Your task to perform on an android device: change keyboard looks Image 0: 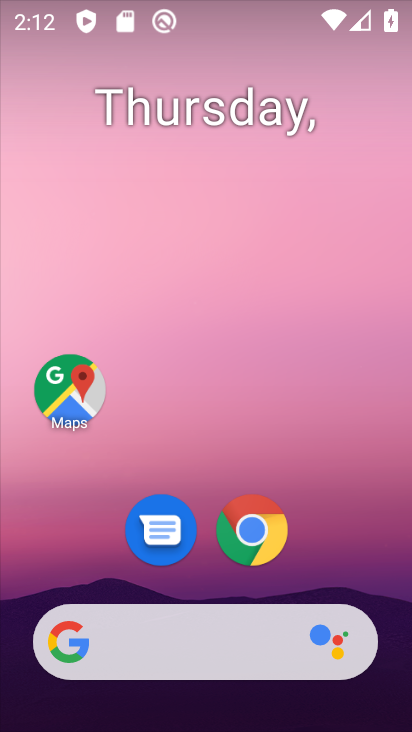
Step 0: drag from (120, 719) to (290, 0)
Your task to perform on an android device: change keyboard looks Image 1: 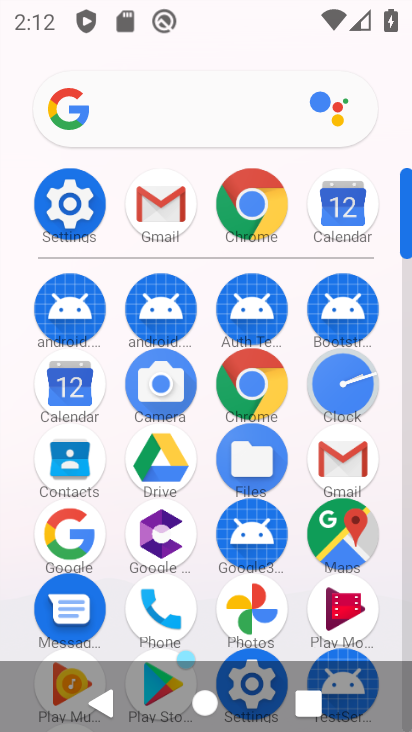
Step 1: click (57, 204)
Your task to perform on an android device: change keyboard looks Image 2: 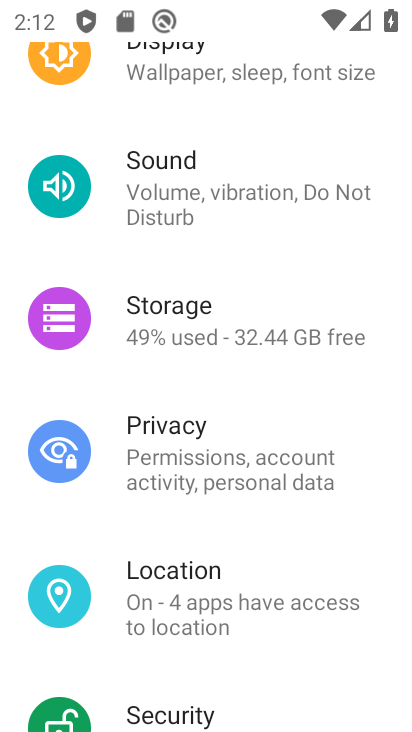
Step 2: drag from (227, 649) to (234, 100)
Your task to perform on an android device: change keyboard looks Image 3: 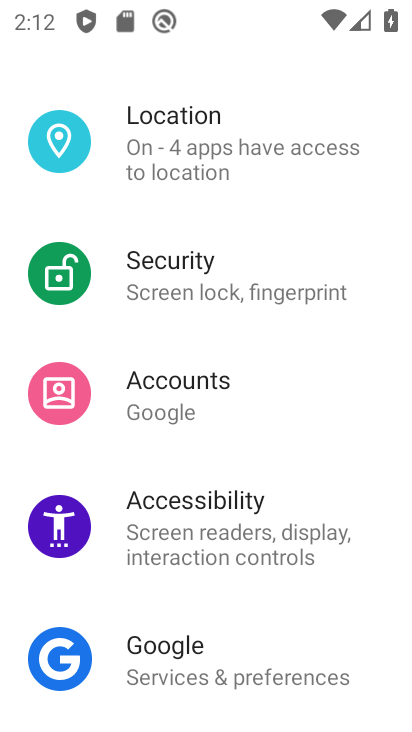
Step 3: drag from (223, 678) to (218, 160)
Your task to perform on an android device: change keyboard looks Image 4: 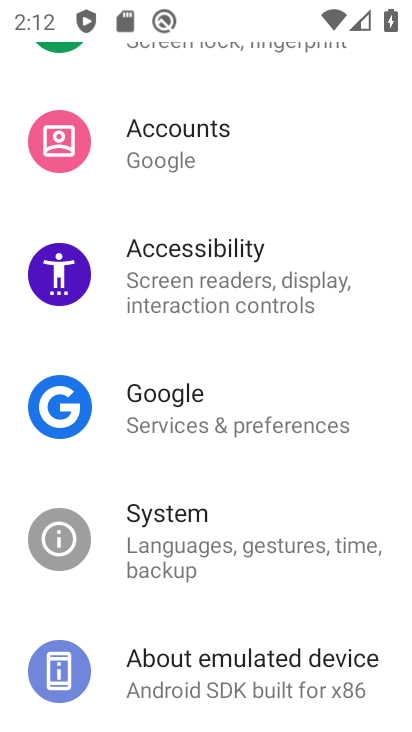
Step 4: click (211, 542)
Your task to perform on an android device: change keyboard looks Image 5: 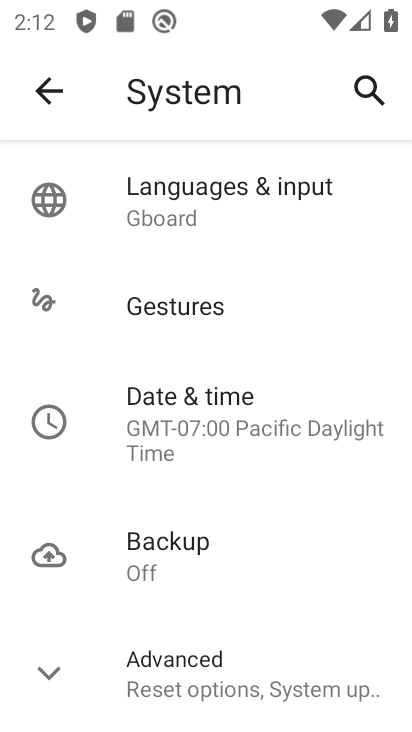
Step 5: click (247, 181)
Your task to perform on an android device: change keyboard looks Image 6: 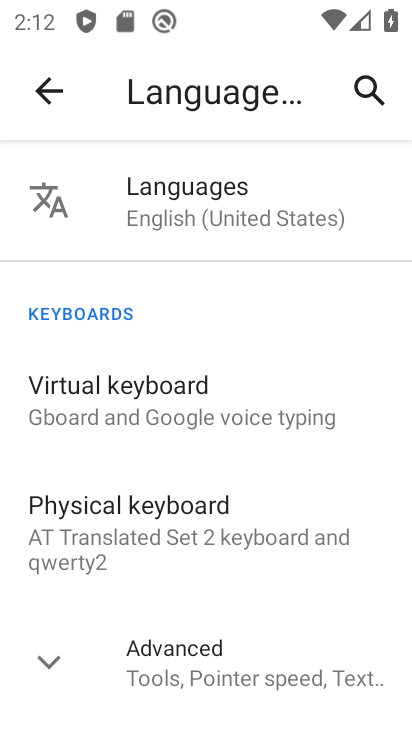
Step 6: click (188, 407)
Your task to perform on an android device: change keyboard looks Image 7: 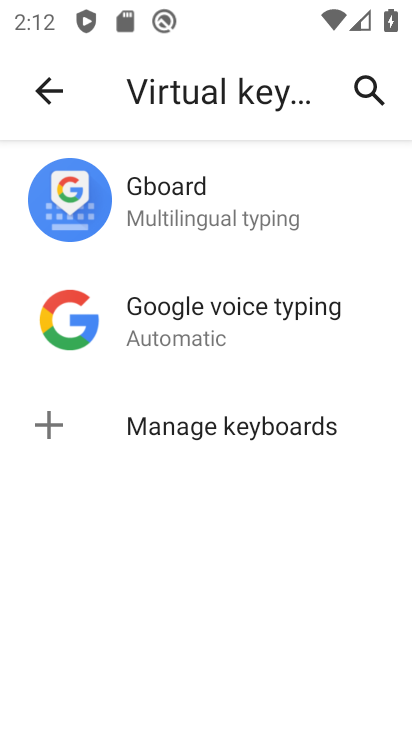
Step 7: click (278, 190)
Your task to perform on an android device: change keyboard looks Image 8: 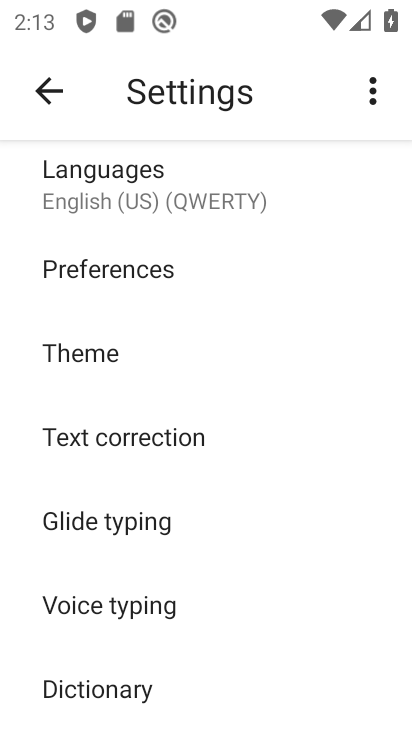
Step 8: click (115, 366)
Your task to perform on an android device: change keyboard looks Image 9: 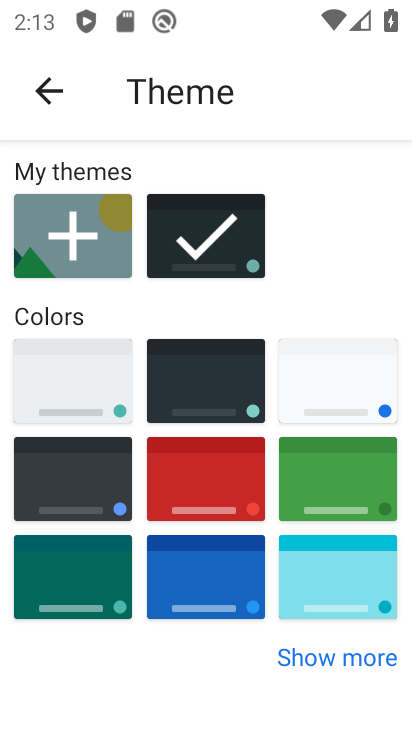
Step 9: click (231, 376)
Your task to perform on an android device: change keyboard looks Image 10: 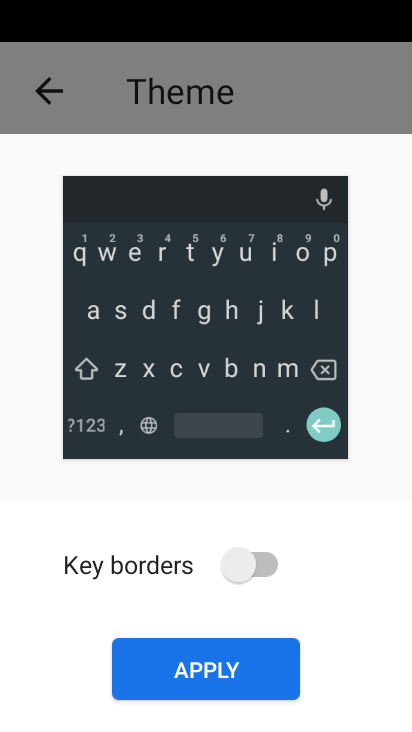
Step 10: click (162, 668)
Your task to perform on an android device: change keyboard looks Image 11: 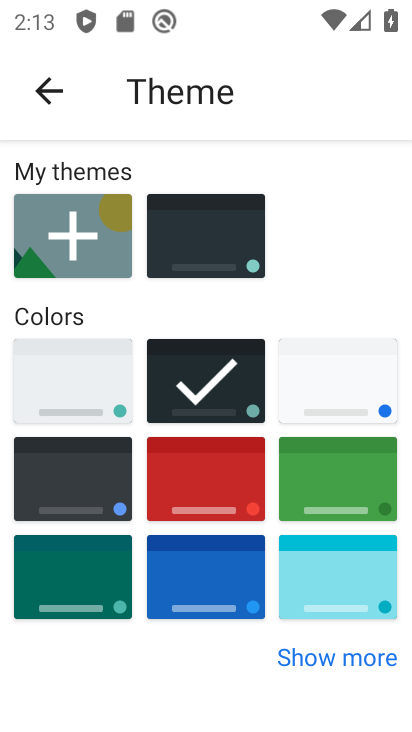
Step 11: task complete